Your task to perform on an android device: Show me productivity apps on the Play Store Image 0: 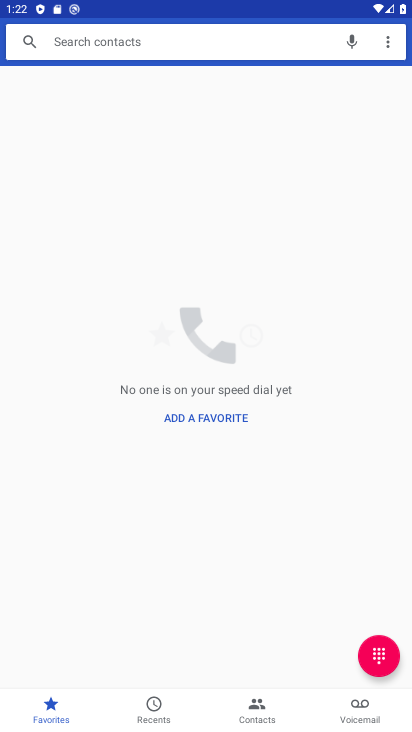
Step 0: press home button
Your task to perform on an android device: Show me productivity apps on the Play Store Image 1: 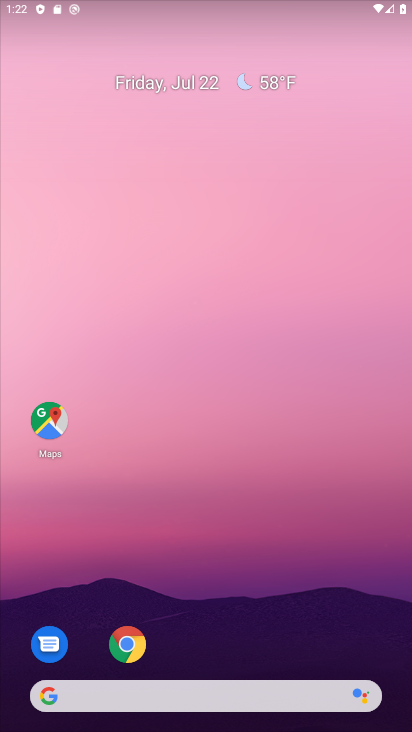
Step 1: drag from (186, 675) to (189, 167)
Your task to perform on an android device: Show me productivity apps on the Play Store Image 2: 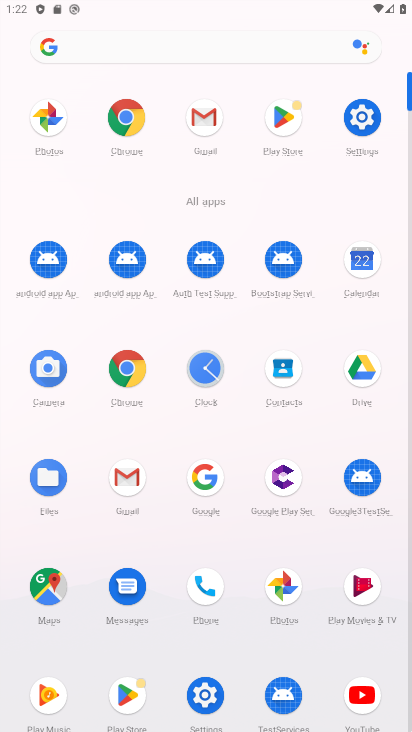
Step 2: click (136, 693)
Your task to perform on an android device: Show me productivity apps on the Play Store Image 3: 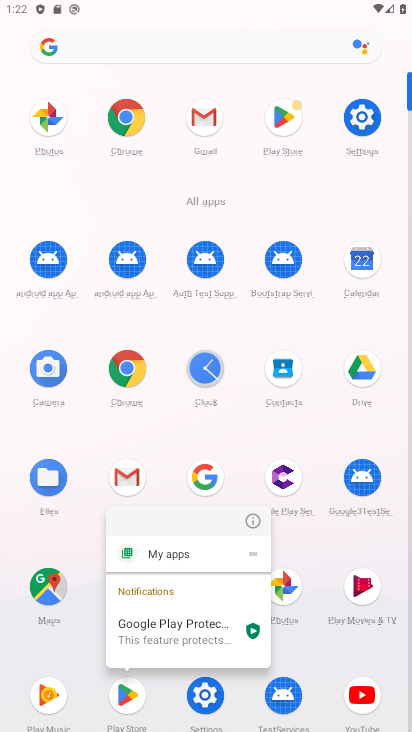
Step 3: click (132, 699)
Your task to perform on an android device: Show me productivity apps on the Play Store Image 4: 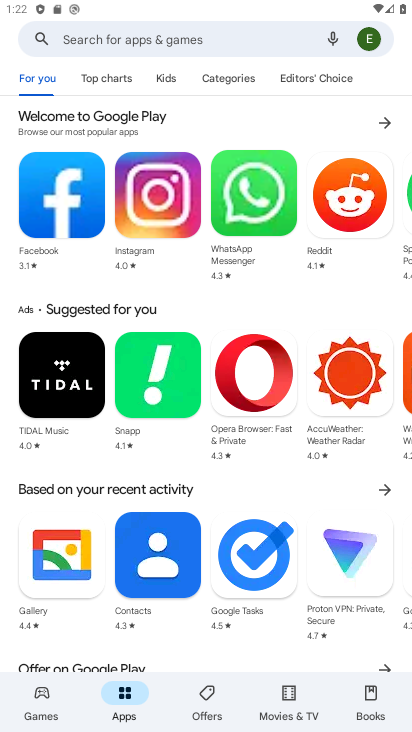
Step 4: task complete